Your task to perform on an android device: Show me the alarms in the clock app Image 0: 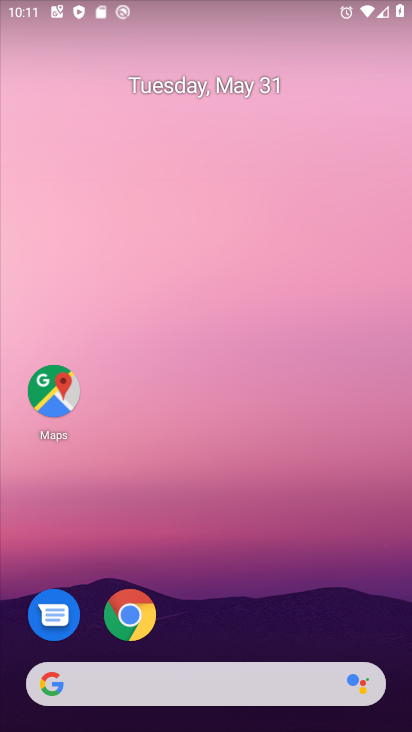
Step 0: drag from (277, 641) to (325, 59)
Your task to perform on an android device: Show me the alarms in the clock app Image 1: 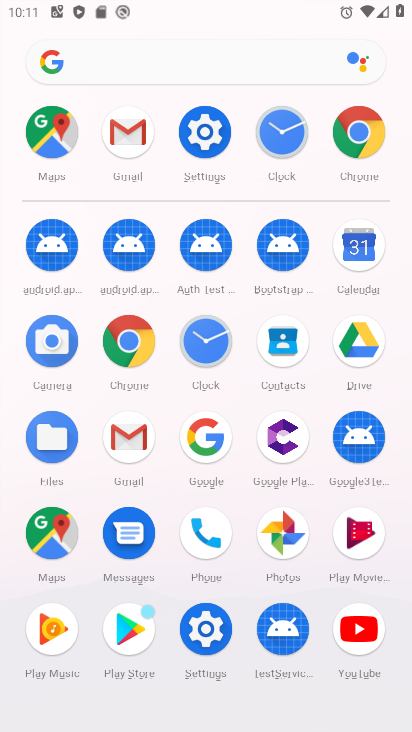
Step 1: click (289, 126)
Your task to perform on an android device: Show me the alarms in the clock app Image 2: 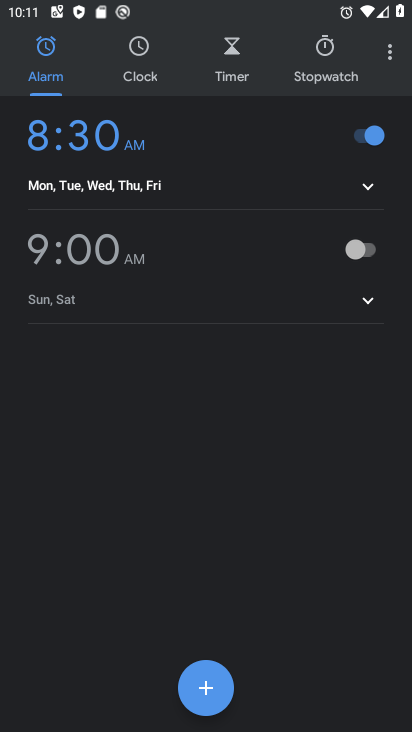
Step 2: click (176, 137)
Your task to perform on an android device: Show me the alarms in the clock app Image 3: 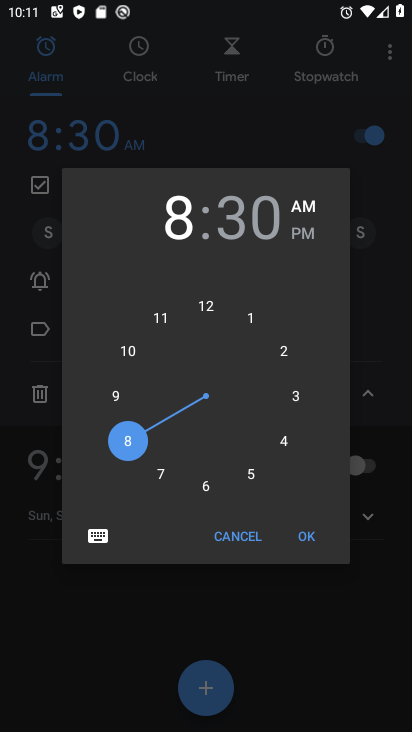
Step 3: task complete